Your task to perform on an android device: Open Maps and search for coffee Image 0: 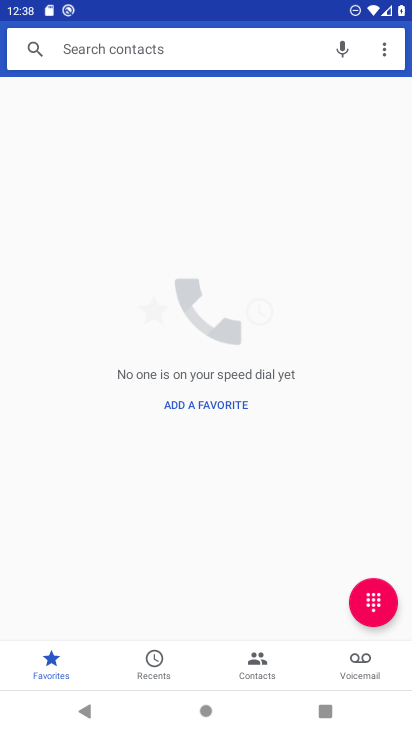
Step 0: press home button
Your task to perform on an android device: Open Maps and search for coffee Image 1: 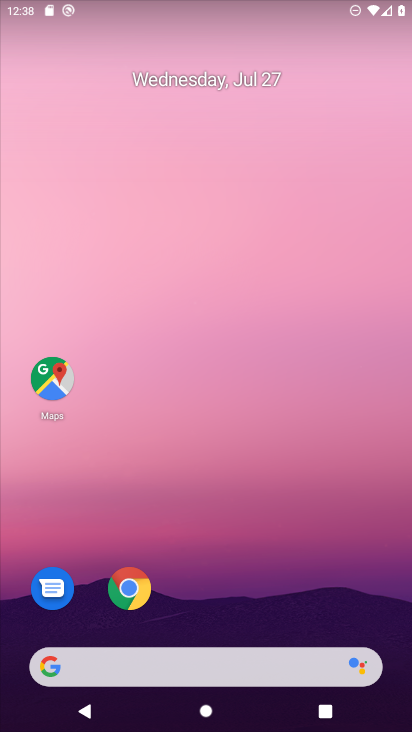
Step 1: click (49, 705)
Your task to perform on an android device: Open Maps and search for coffee Image 2: 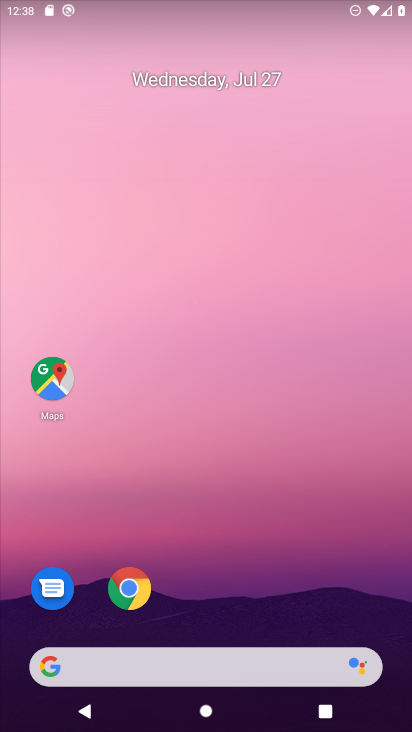
Step 2: click (48, 398)
Your task to perform on an android device: Open Maps and search for coffee Image 3: 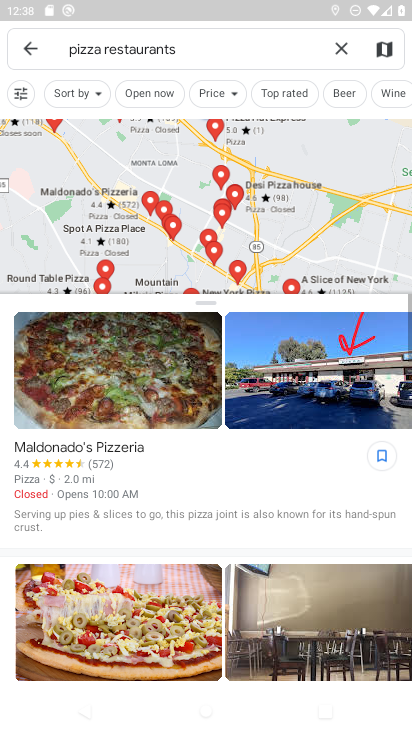
Step 3: click (20, 47)
Your task to perform on an android device: Open Maps and search for coffee Image 4: 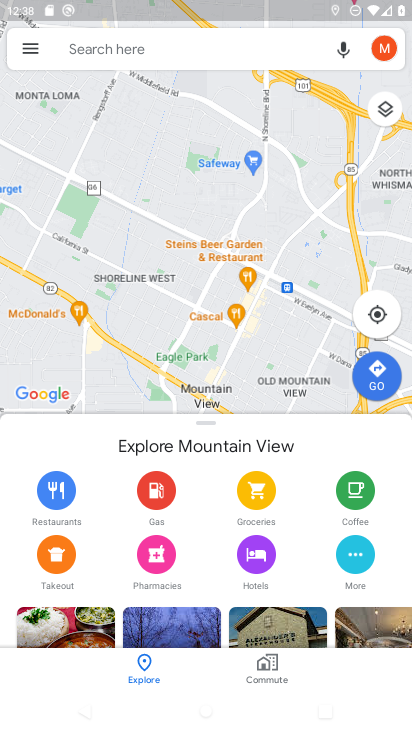
Step 4: click (95, 54)
Your task to perform on an android device: Open Maps and search for coffee Image 5: 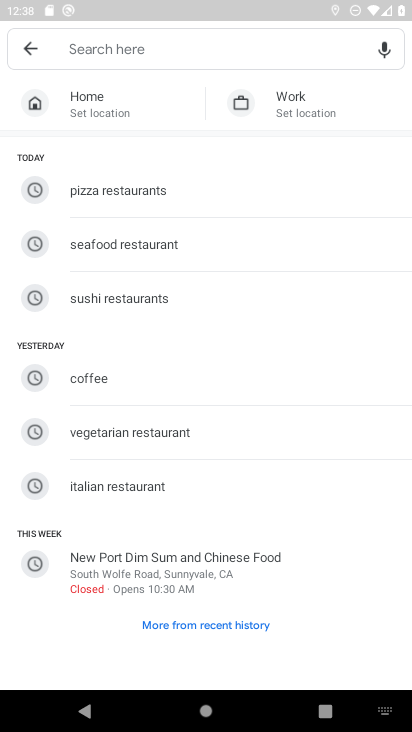
Step 5: type "coffee"
Your task to perform on an android device: Open Maps and search for coffee Image 6: 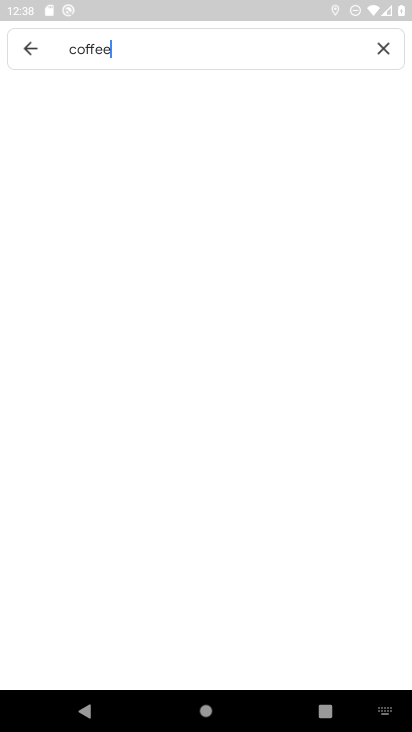
Step 6: type ""
Your task to perform on an android device: Open Maps and search for coffee Image 7: 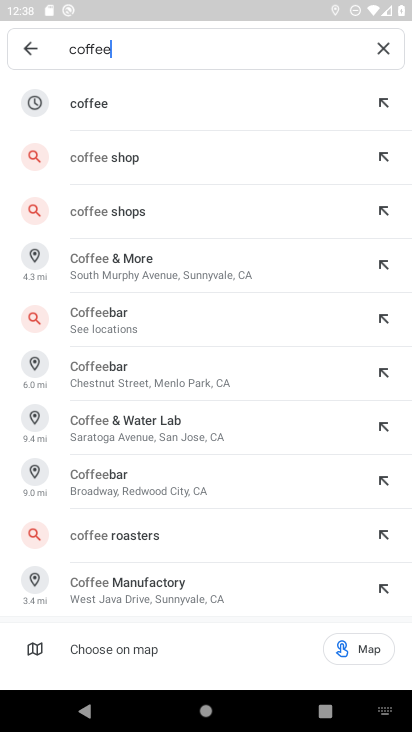
Step 7: click (89, 97)
Your task to perform on an android device: Open Maps and search for coffee Image 8: 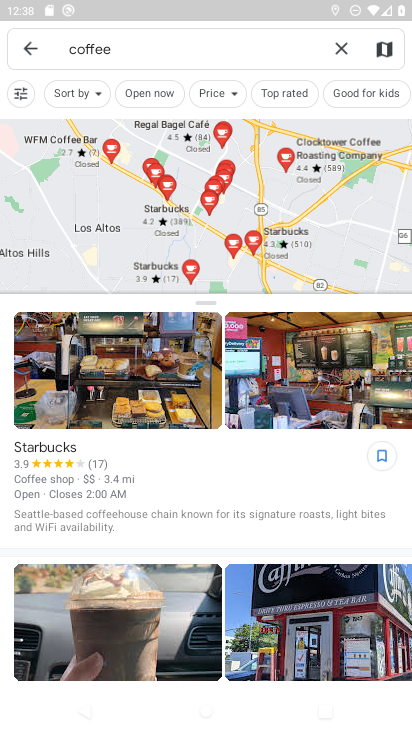
Step 8: task complete